Your task to perform on an android device: delete a single message in the gmail app Image 0: 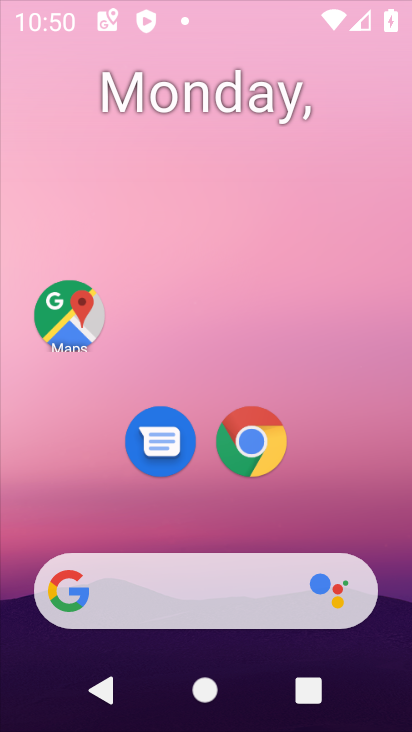
Step 0: drag from (222, 533) to (283, 84)
Your task to perform on an android device: delete a single message in the gmail app Image 1: 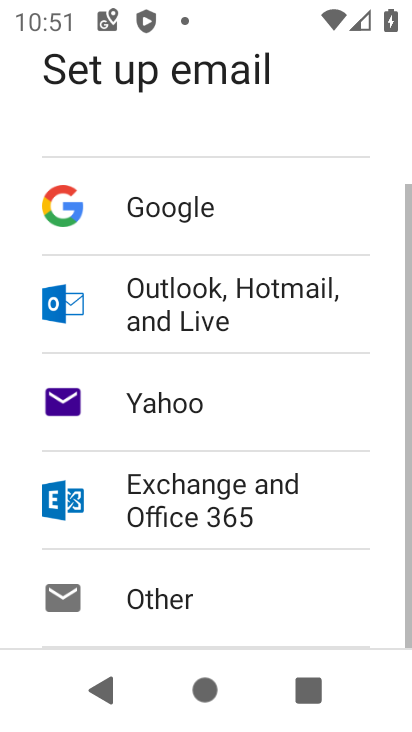
Step 1: press back button
Your task to perform on an android device: delete a single message in the gmail app Image 2: 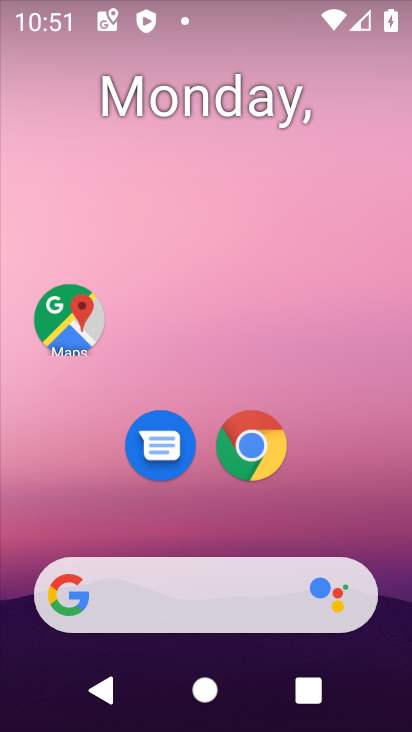
Step 2: drag from (205, 530) to (282, 32)
Your task to perform on an android device: delete a single message in the gmail app Image 3: 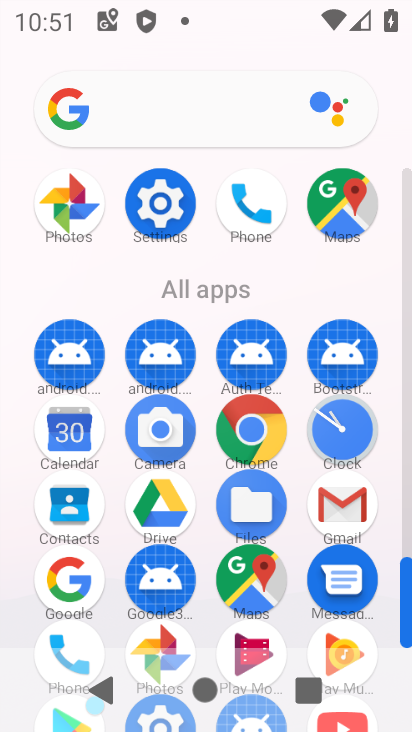
Step 3: drag from (226, 589) to (263, 250)
Your task to perform on an android device: delete a single message in the gmail app Image 4: 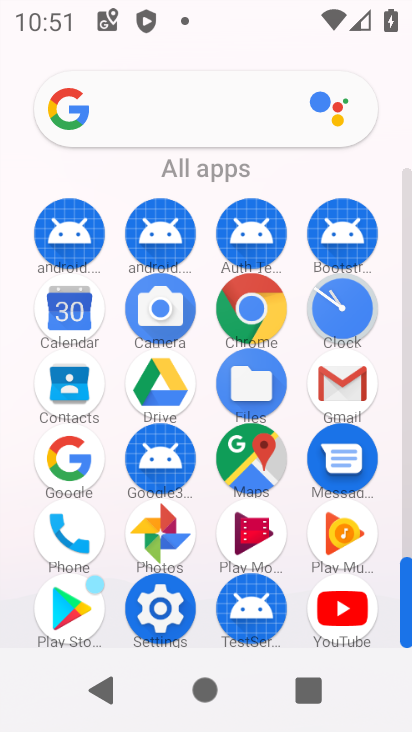
Step 4: click (342, 390)
Your task to perform on an android device: delete a single message in the gmail app Image 5: 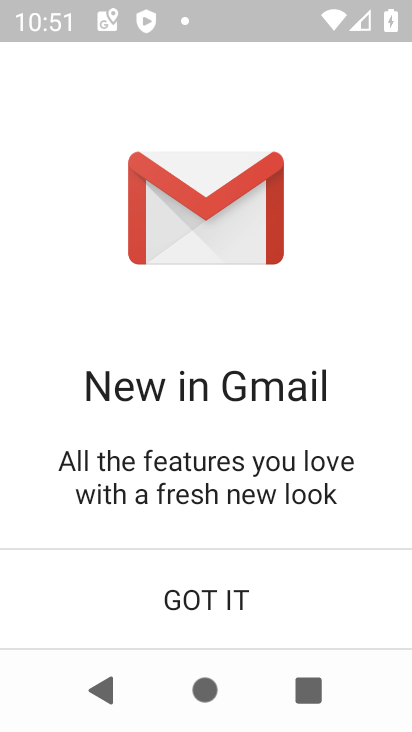
Step 5: click (177, 583)
Your task to perform on an android device: delete a single message in the gmail app Image 6: 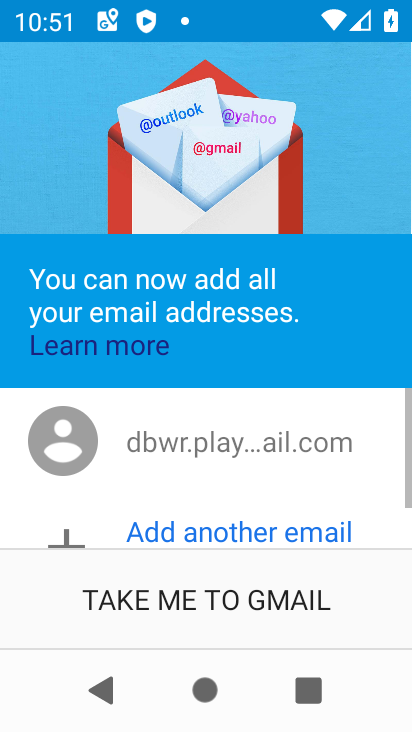
Step 6: click (194, 606)
Your task to perform on an android device: delete a single message in the gmail app Image 7: 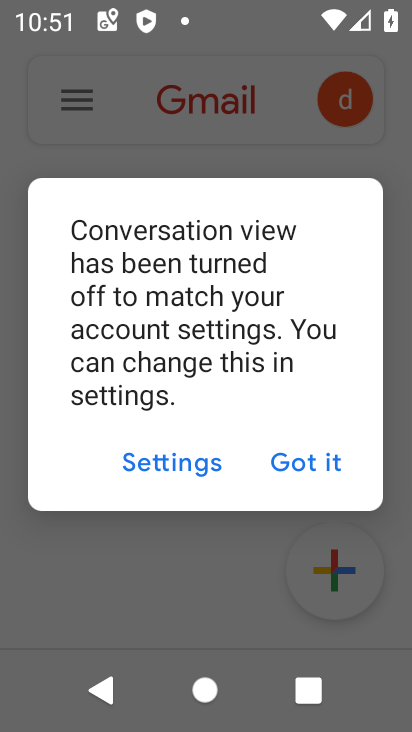
Step 7: click (293, 457)
Your task to perform on an android device: delete a single message in the gmail app Image 8: 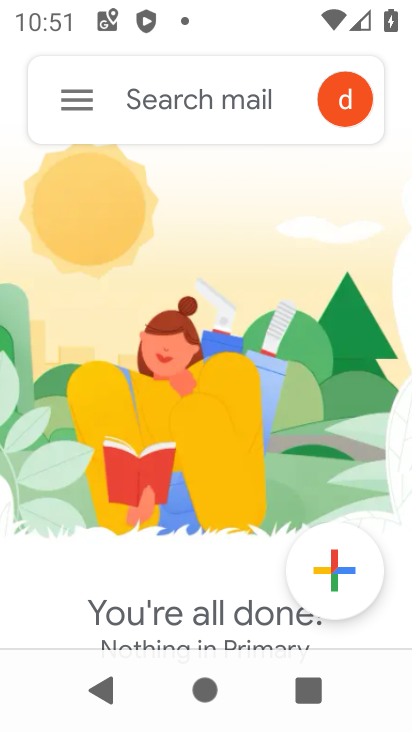
Step 8: click (70, 95)
Your task to perform on an android device: delete a single message in the gmail app Image 9: 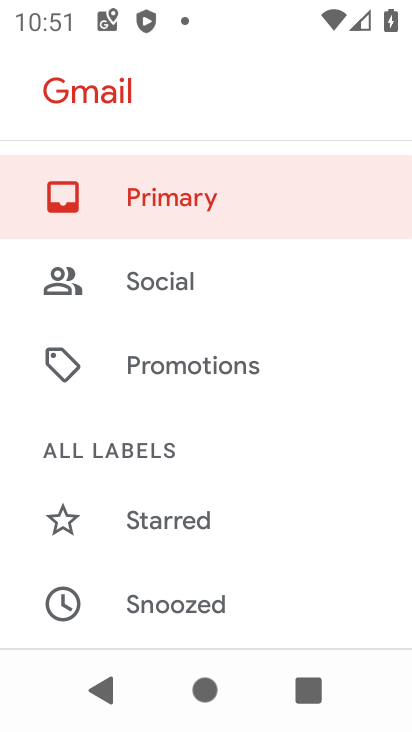
Step 9: drag from (204, 585) to (300, 82)
Your task to perform on an android device: delete a single message in the gmail app Image 10: 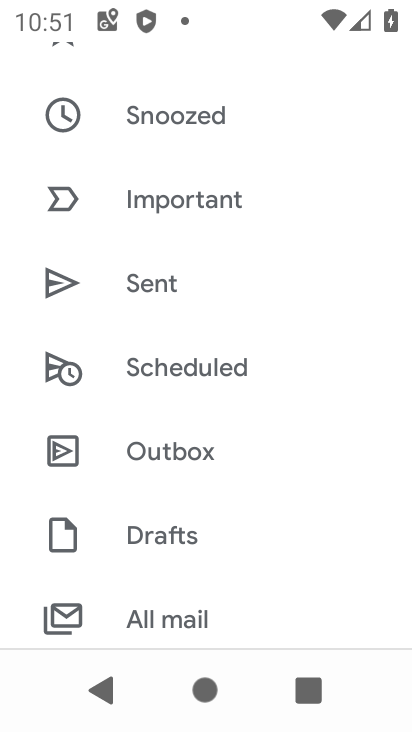
Step 10: drag from (207, 591) to (330, 132)
Your task to perform on an android device: delete a single message in the gmail app Image 11: 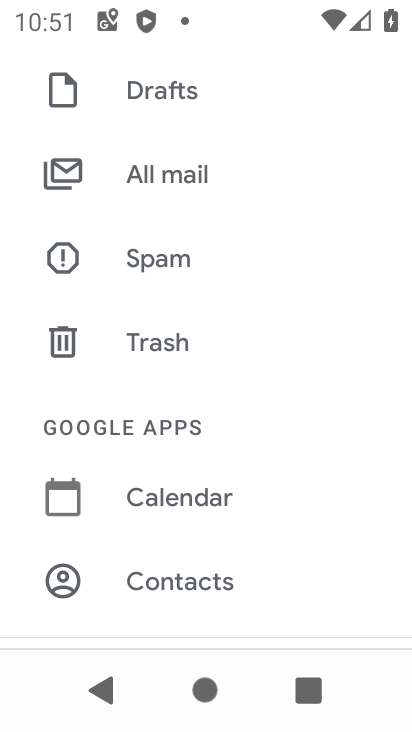
Step 11: click (203, 176)
Your task to perform on an android device: delete a single message in the gmail app Image 12: 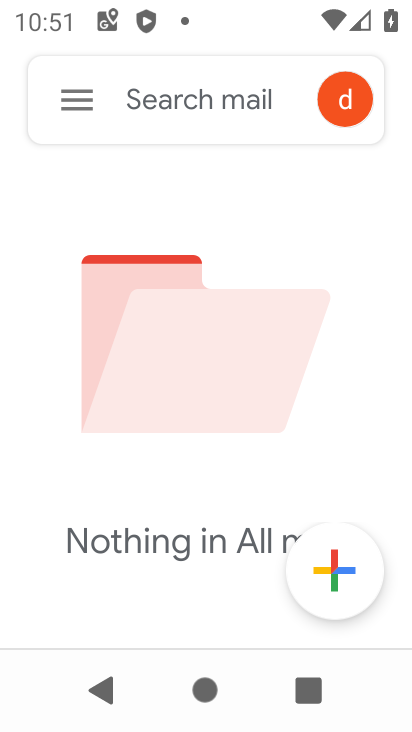
Step 12: task complete